Your task to perform on an android device: Do I have any events today? Image 0: 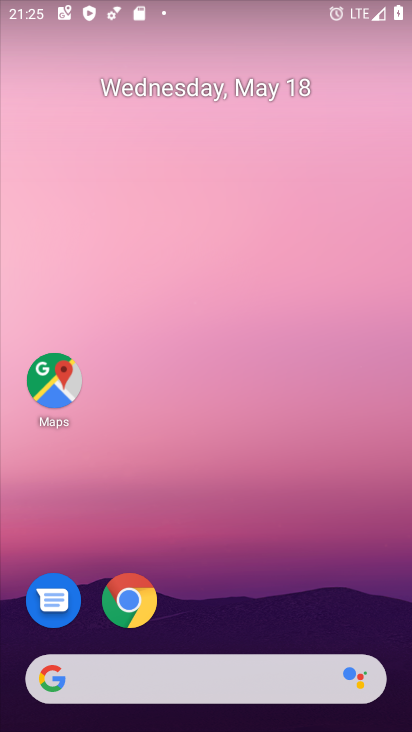
Step 0: drag from (239, 619) to (287, 154)
Your task to perform on an android device: Do I have any events today? Image 1: 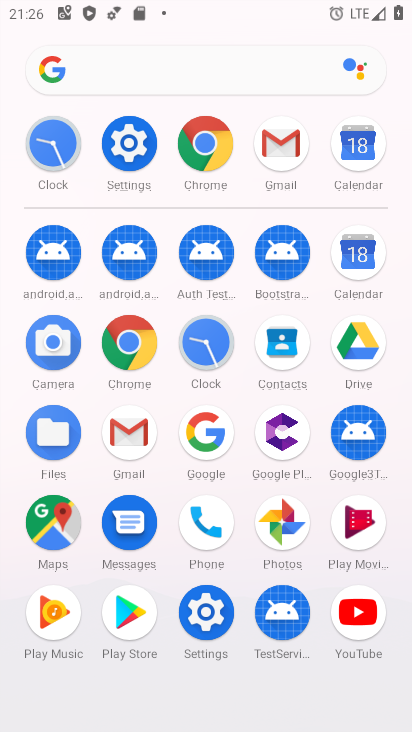
Step 1: click (365, 251)
Your task to perform on an android device: Do I have any events today? Image 2: 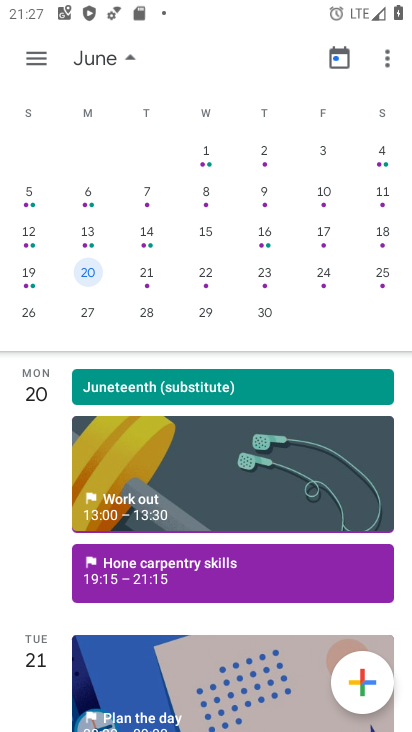
Step 2: drag from (246, 430) to (205, 659)
Your task to perform on an android device: Do I have any events today? Image 3: 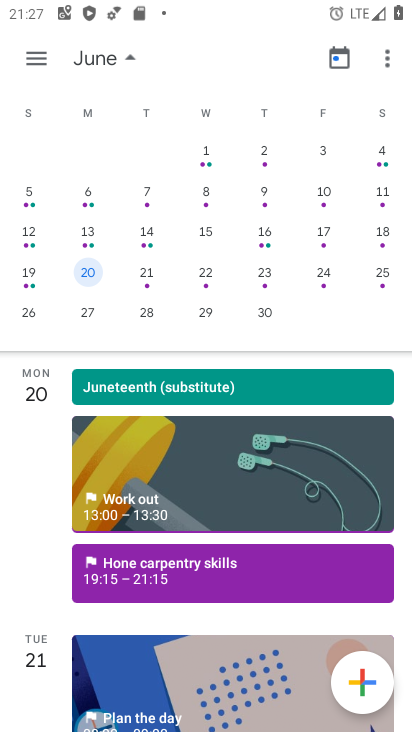
Step 3: drag from (19, 215) to (333, 189)
Your task to perform on an android device: Do I have any events today? Image 4: 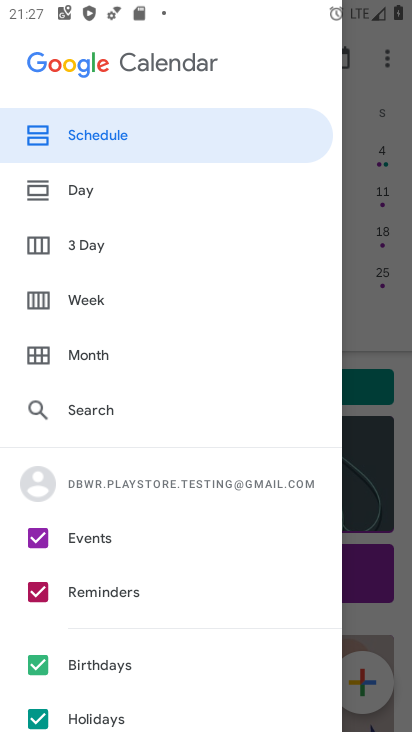
Step 4: click (152, 138)
Your task to perform on an android device: Do I have any events today? Image 5: 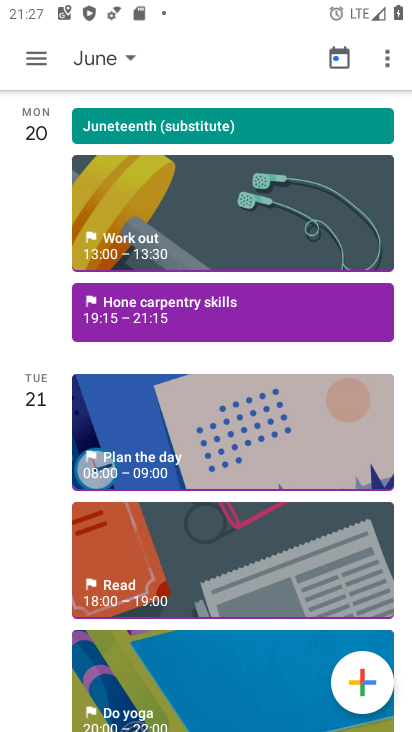
Step 5: click (90, 49)
Your task to perform on an android device: Do I have any events today? Image 6: 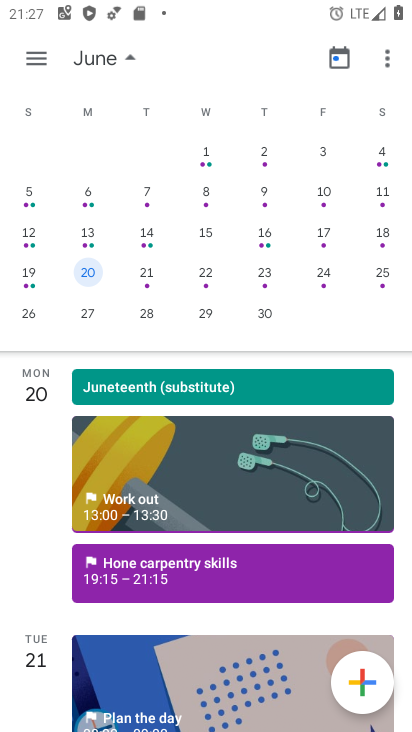
Step 6: drag from (39, 220) to (406, 224)
Your task to perform on an android device: Do I have any events today? Image 7: 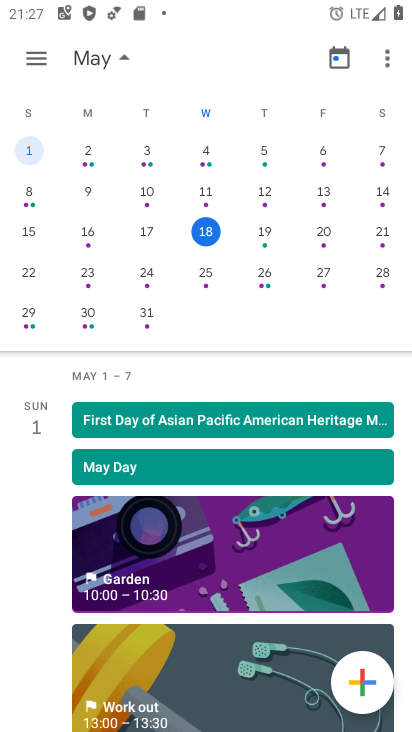
Step 7: click (206, 233)
Your task to perform on an android device: Do I have any events today? Image 8: 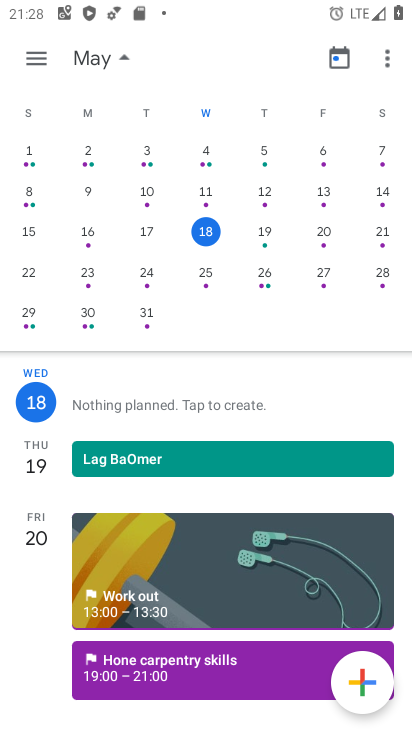
Step 8: task complete